Your task to perform on an android device: change your default location settings in chrome Image 0: 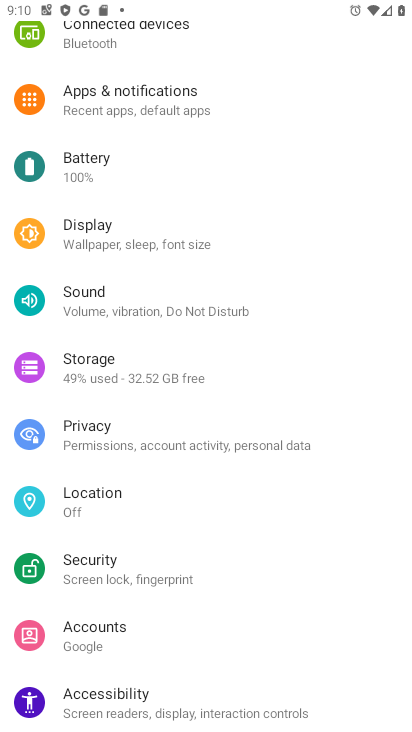
Step 0: press home button
Your task to perform on an android device: change your default location settings in chrome Image 1: 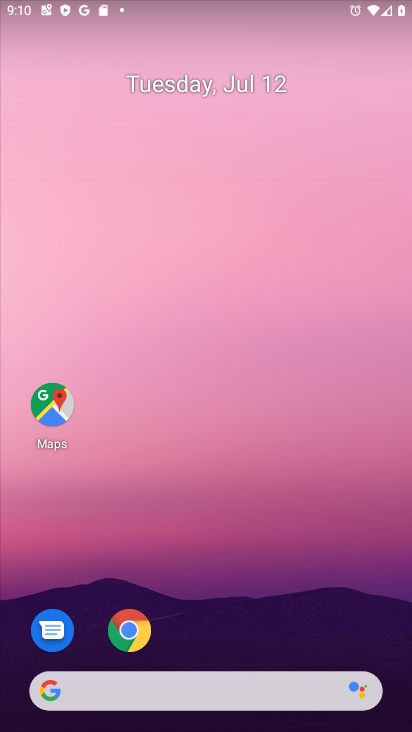
Step 1: click (127, 630)
Your task to perform on an android device: change your default location settings in chrome Image 2: 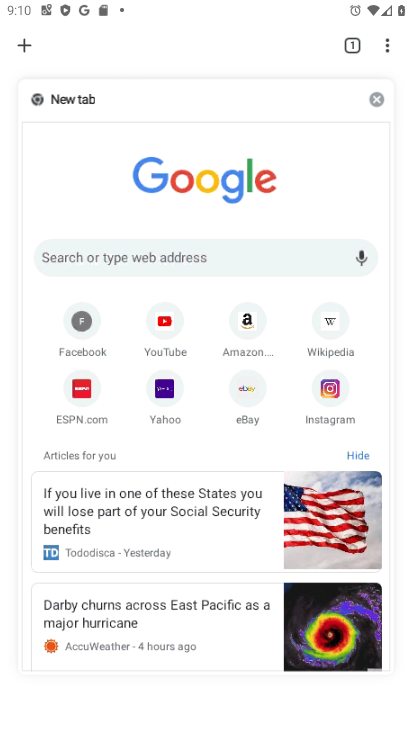
Step 2: click (386, 50)
Your task to perform on an android device: change your default location settings in chrome Image 3: 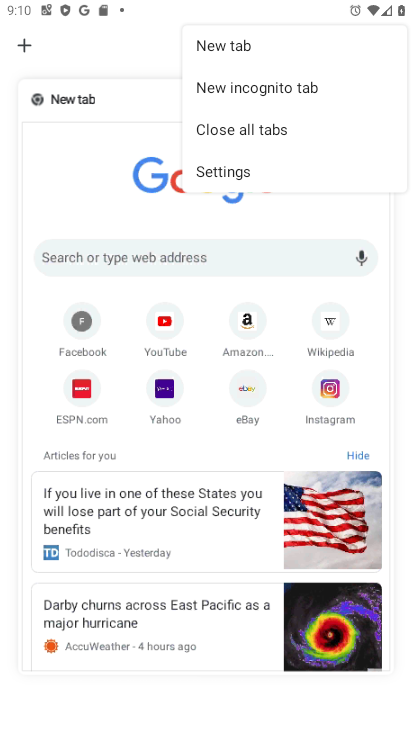
Step 3: click (241, 170)
Your task to perform on an android device: change your default location settings in chrome Image 4: 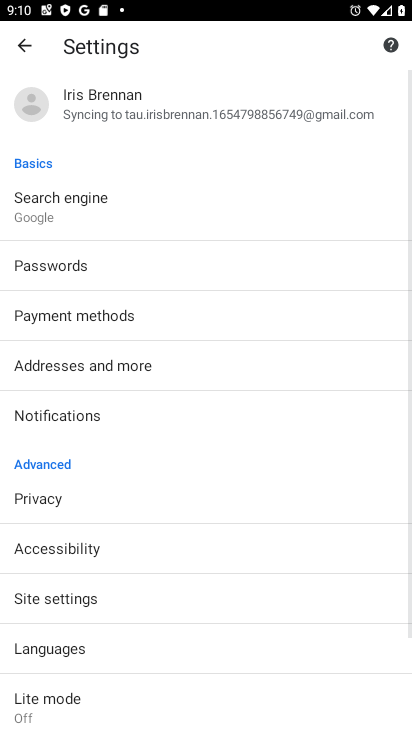
Step 4: click (57, 606)
Your task to perform on an android device: change your default location settings in chrome Image 5: 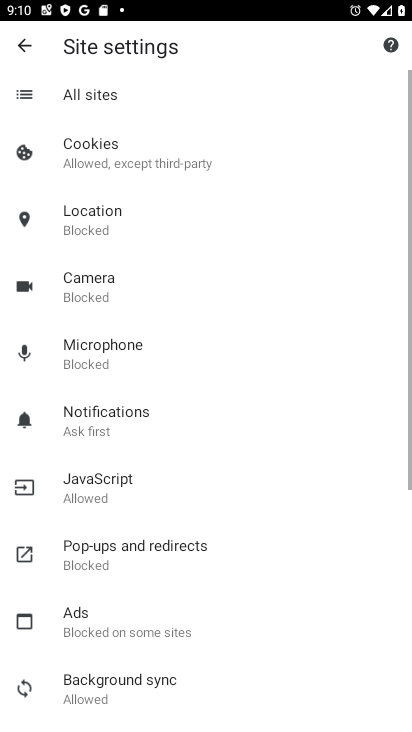
Step 5: click (115, 213)
Your task to perform on an android device: change your default location settings in chrome Image 6: 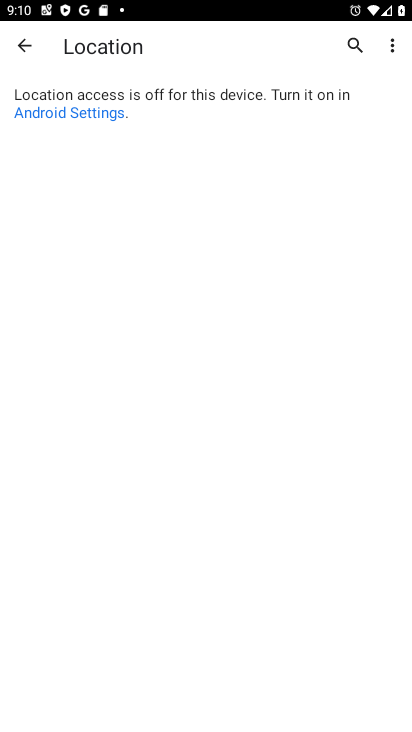
Step 6: task complete